Your task to perform on an android device: Open settings on Google Maps Image 0: 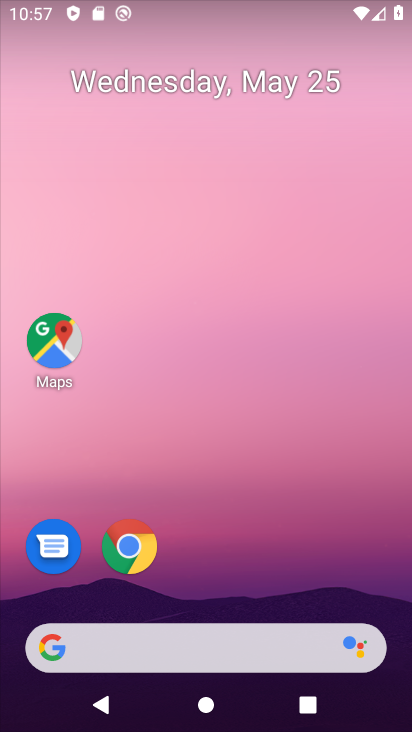
Step 0: click (264, 169)
Your task to perform on an android device: Open settings on Google Maps Image 1: 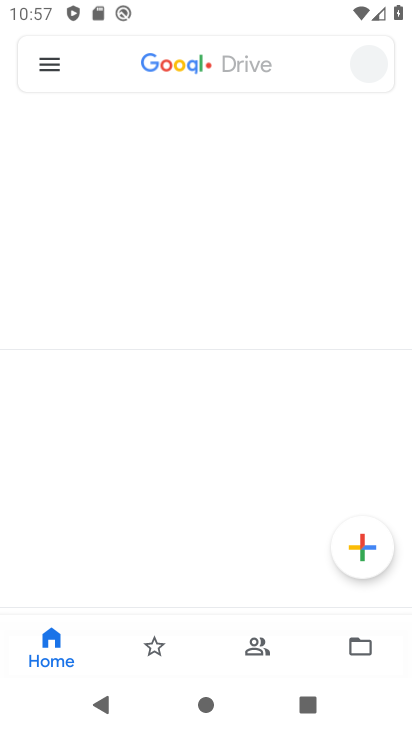
Step 1: press home button
Your task to perform on an android device: Open settings on Google Maps Image 2: 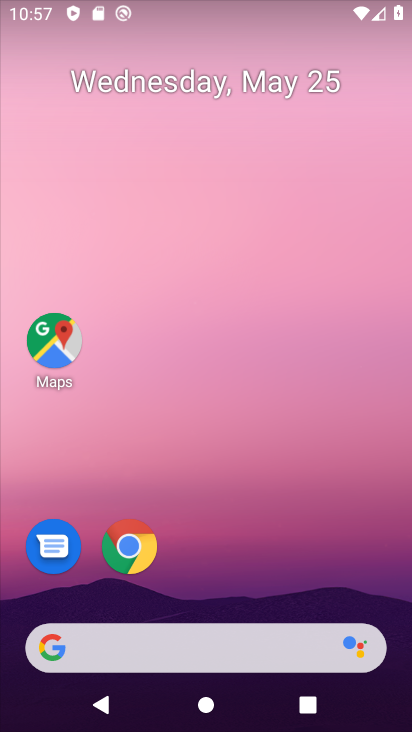
Step 2: drag from (345, 563) to (318, 164)
Your task to perform on an android device: Open settings on Google Maps Image 3: 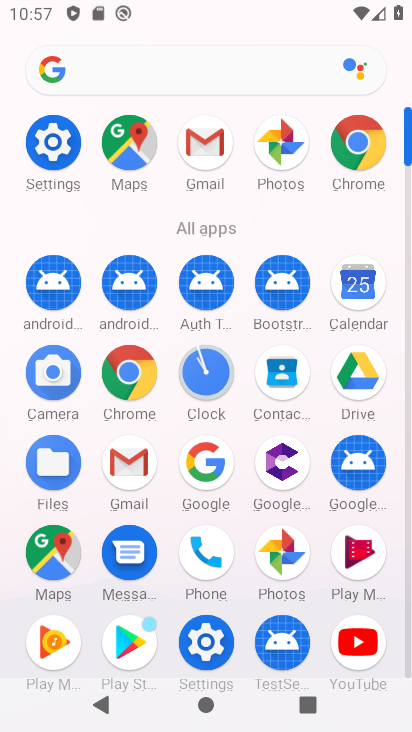
Step 3: click (147, 154)
Your task to perform on an android device: Open settings on Google Maps Image 4: 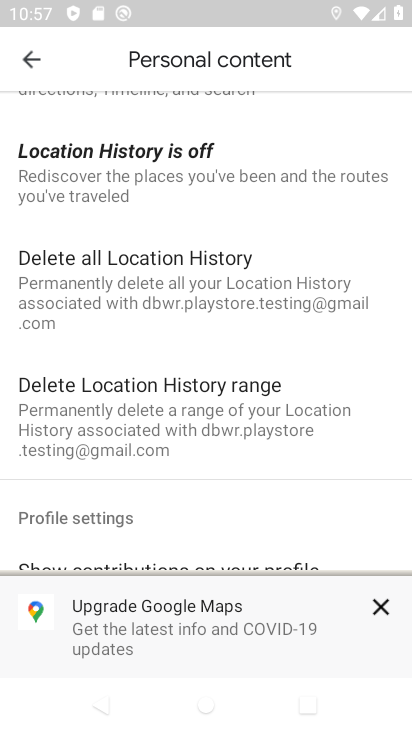
Step 4: click (31, 59)
Your task to perform on an android device: Open settings on Google Maps Image 5: 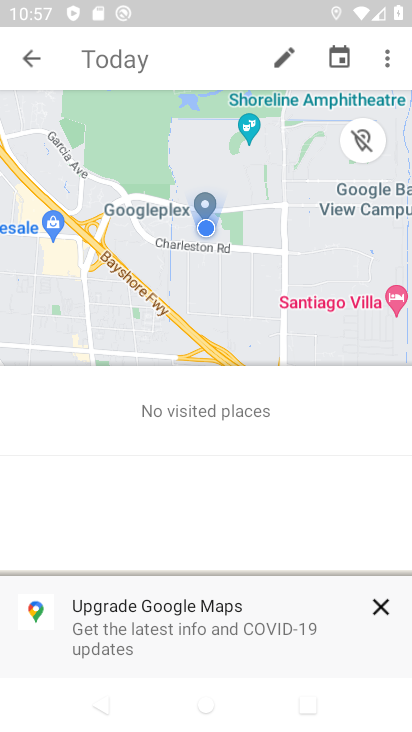
Step 5: click (31, 59)
Your task to perform on an android device: Open settings on Google Maps Image 6: 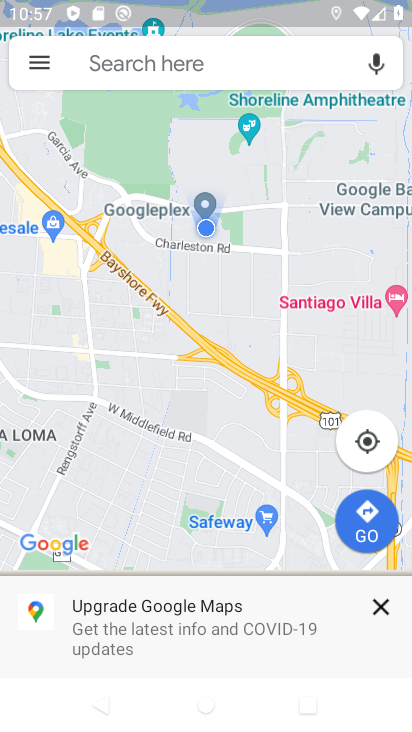
Step 6: task complete